Your task to perform on an android device: Open settings on Google Maps Image 0: 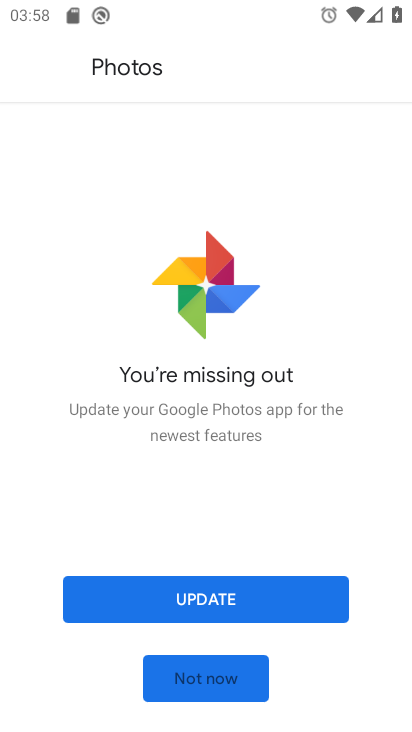
Step 0: click (229, 672)
Your task to perform on an android device: Open settings on Google Maps Image 1: 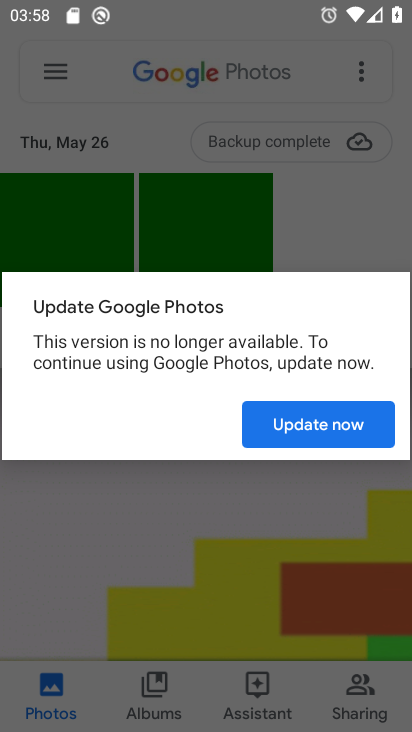
Step 1: click (333, 416)
Your task to perform on an android device: Open settings on Google Maps Image 2: 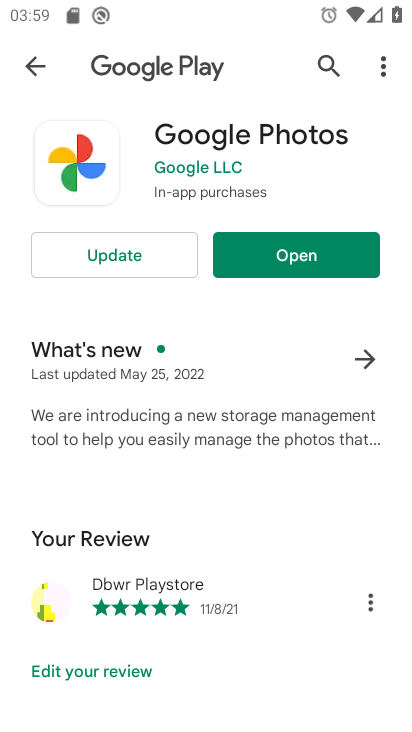
Step 2: click (325, 262)
Your task to perform on an android device: Open settings on Google Maps Image 3: 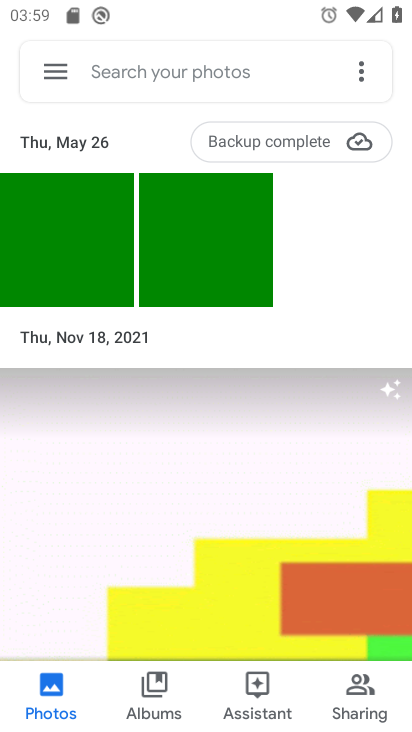
Step 3: click (58, 72)
Your task to perform on an android device: Open settings on Google Maps Image 4: 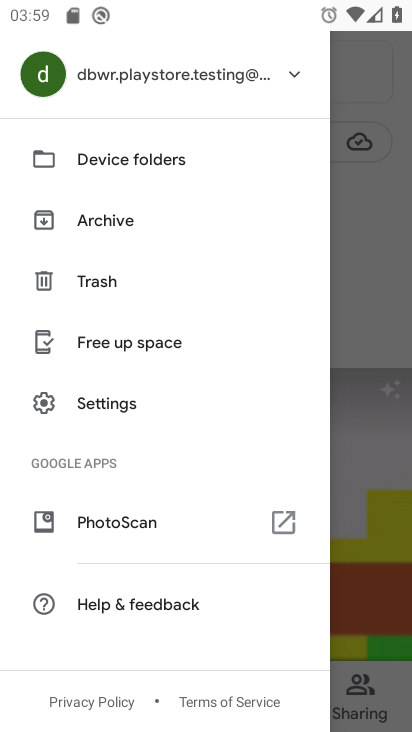
Step 4: click (111, 402)
Your task to perform on an android device: Open settings on Google Maps Image 5: 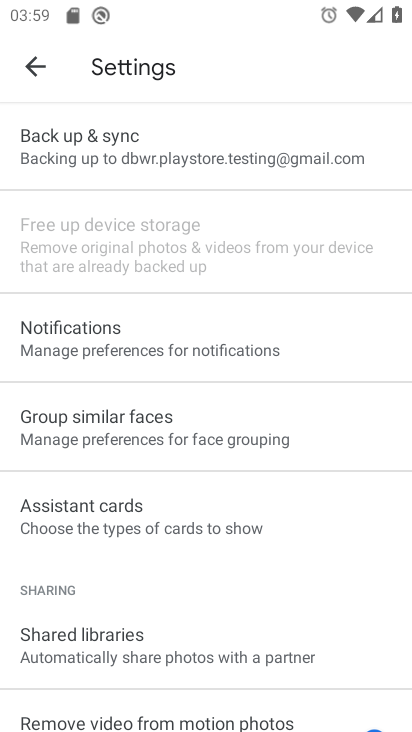
Step 5: task complete